Your task to perform on an android device: toggle translation in the chrome app Image 0: 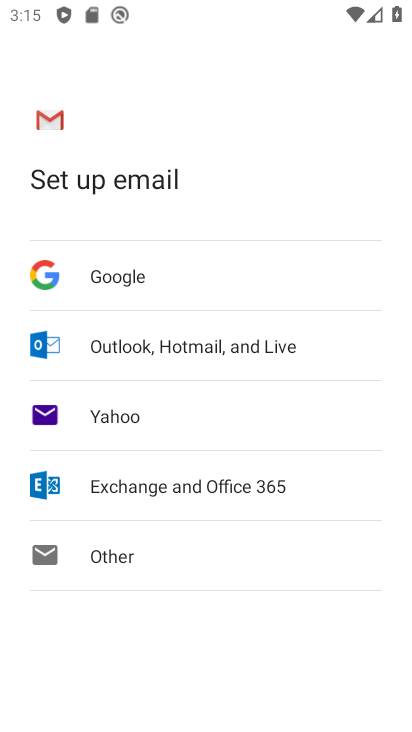
Step 0: press home button
Your task to perform on an android device: toggle translation in the chrome app Image 1: 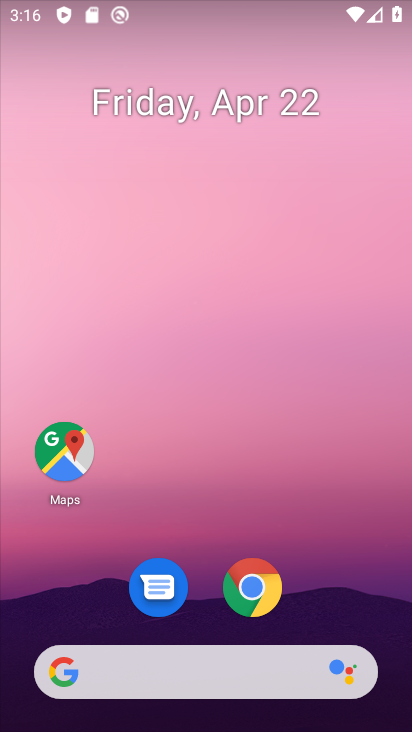
Step 1: click (259, 583)
Your task to perform on an android device: toggle translation in the chrome app Image 2: 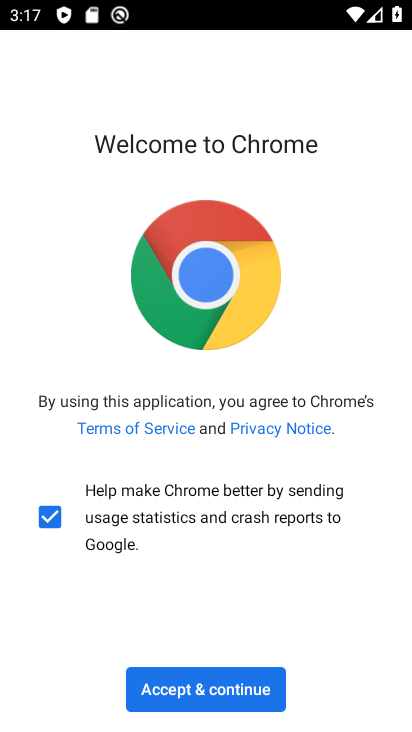
Step 2: click (218, 683)
Your task to perform on an android device: toggle translation in the chrome app Image 3: 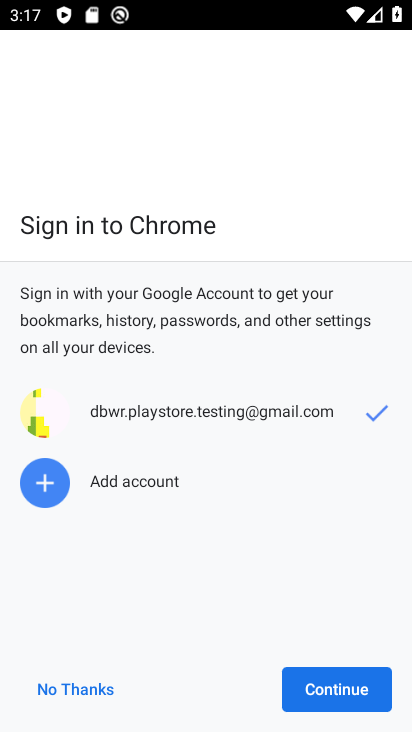
Step 3: click (93, 693)
Your task to perform on an android device: toggle translation in the chrome app Image 4: 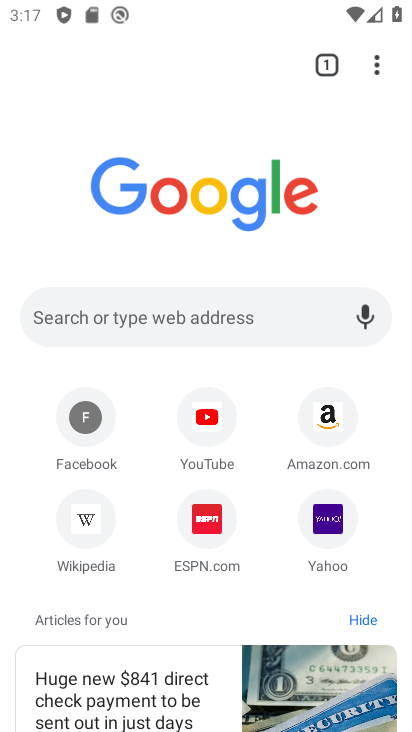
Step 4: click (376, 66)
Your task to perform on an android device: toggle translation in the chrome app Image 5: 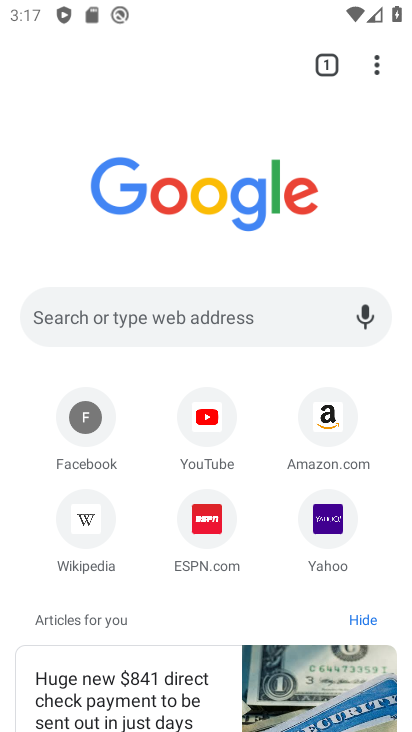
Step 5: click (378, 71)
Your task to perform on an android device: toggle translation in the chrome app Image 6: 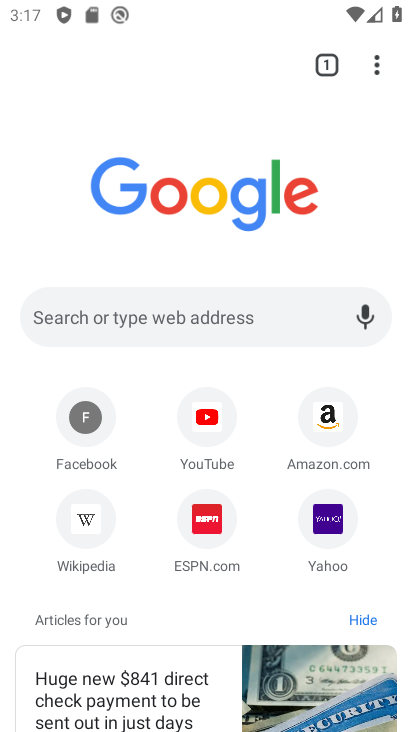
Step 6: click (378, 66)
Your task to perform on an android device: toggle translation in the chrome app Image 7: 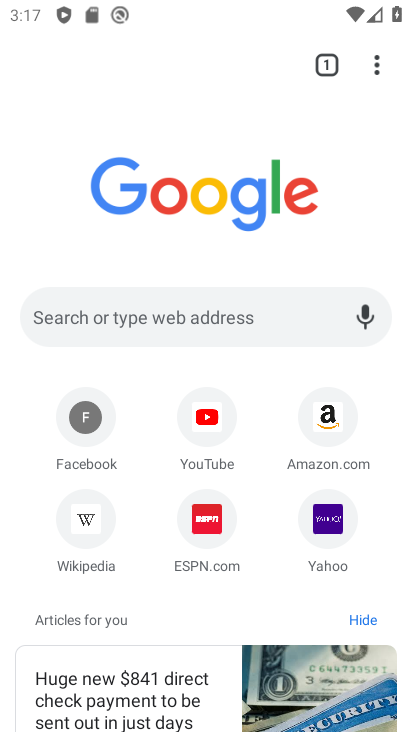
Step 7: drag from (406, 139) to (378, 65)
Your task to perform on an android device: toggle translation in the chrome app Image 8: 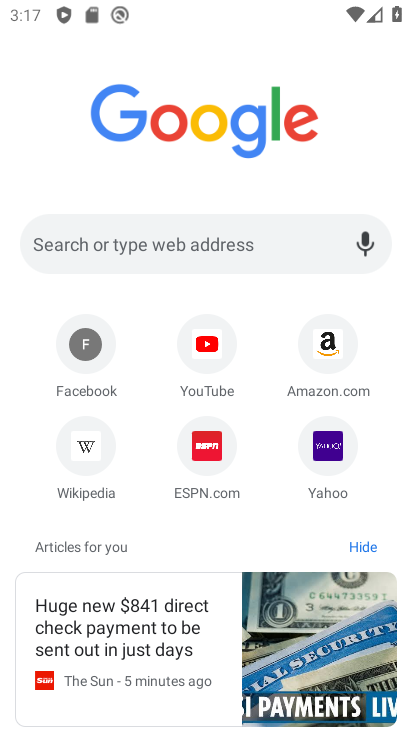
Step 8: drag from (379, 90) to (406, 171)
Your task to perform on an android device: toggle translation in the chrome app Image 9: 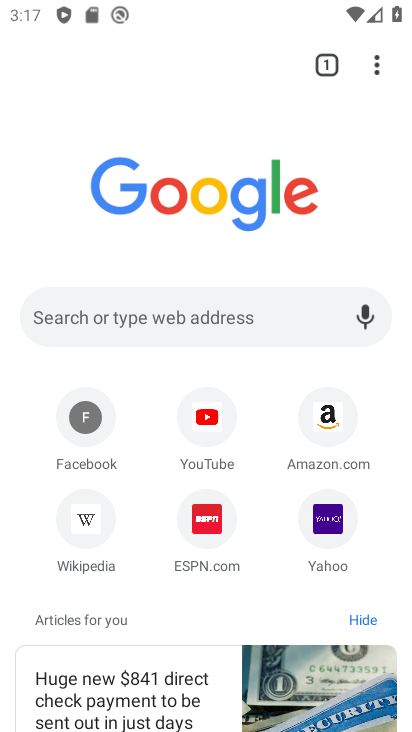
Step 9: click (379, 62)
Your task to perform on an android device: toggle translation in the chrome app Image 10: 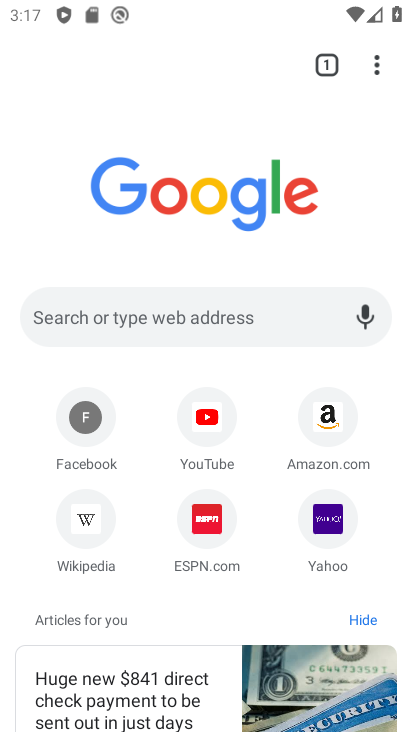
Step 10: click (376, 65)
Your task to perform on an android device: toggle translation in the chrome app Image 11: 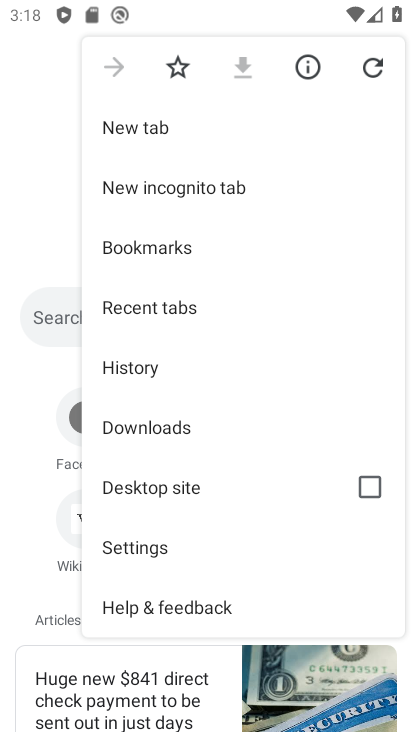
Step 11: click (143, 548)
Your task to perform on an android device: toggle translation in the chrome app Image 12: 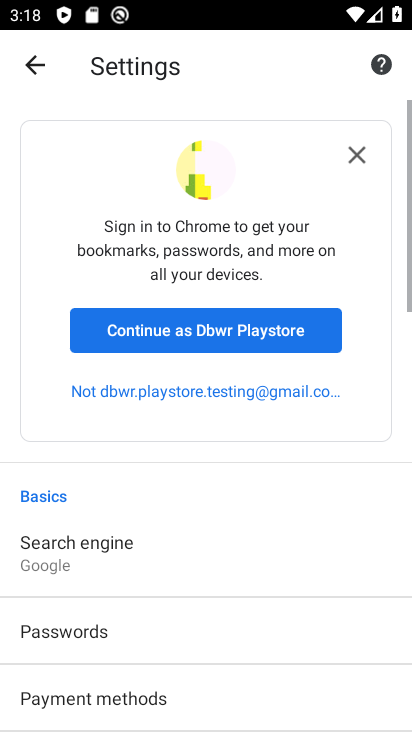
Step 12: drag from (143, 572) to (161, 137)
Your task to perform on an android device: toggle translation in the chrome app Image 13: 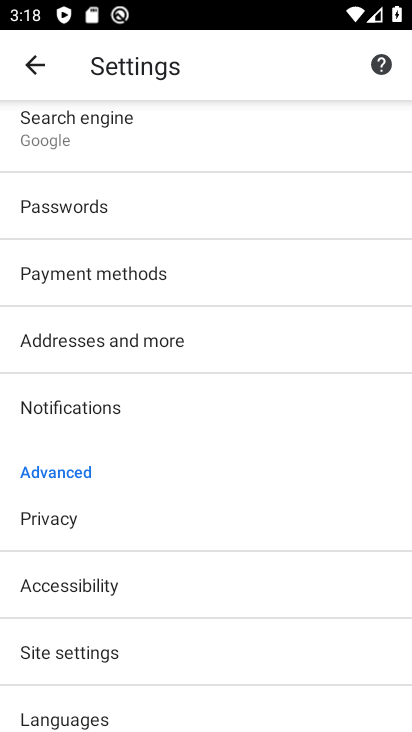
Step 13: drag from (154, 522) to (171, 194)
Your task to perform on an android device: toggle translation in the chrome app Image 14: 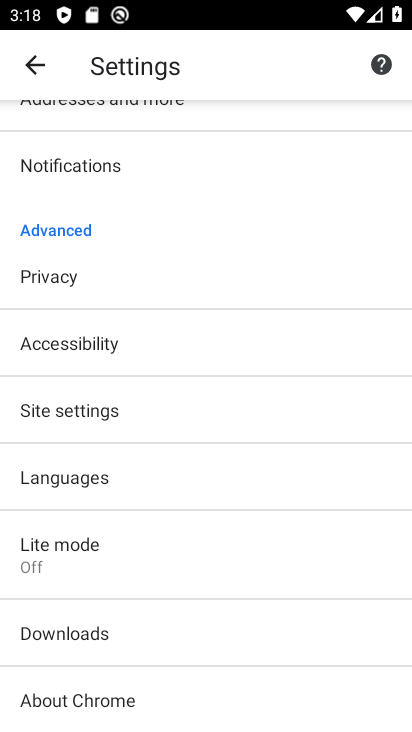
Step 14: click (82, 482)
Your task to perform on an android device: toggle translation in the chrome app Image 15: 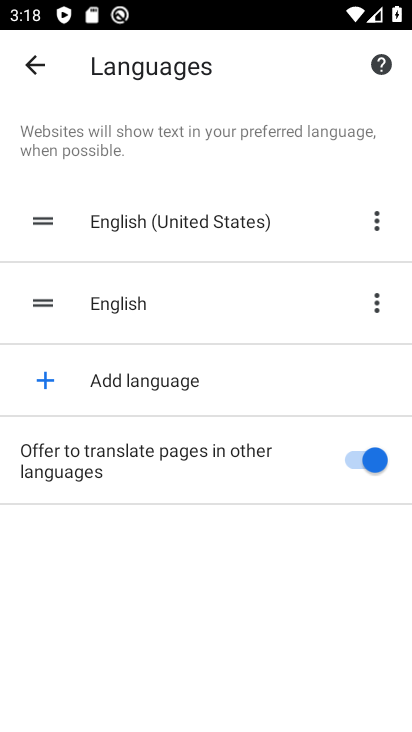
Step 15: click (379, 470)
Your task to perform on an android device: toggle translation in the chrome app Image 16: 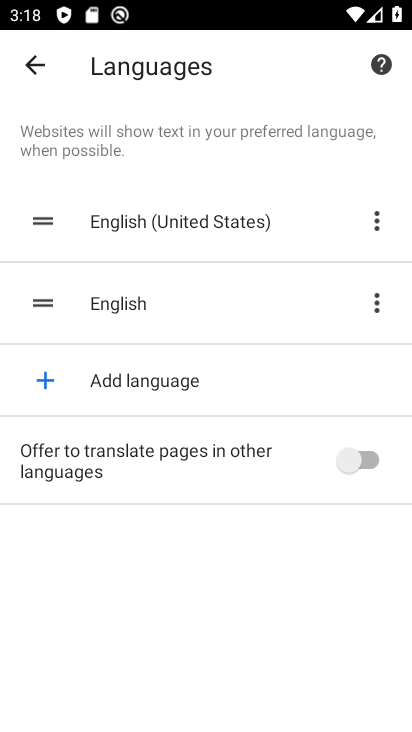
Step 16: task complete